Your task to perform on an android device: Search for "razer huntsman" on walmart, select the first entry, and add it to the cart. Image 0: 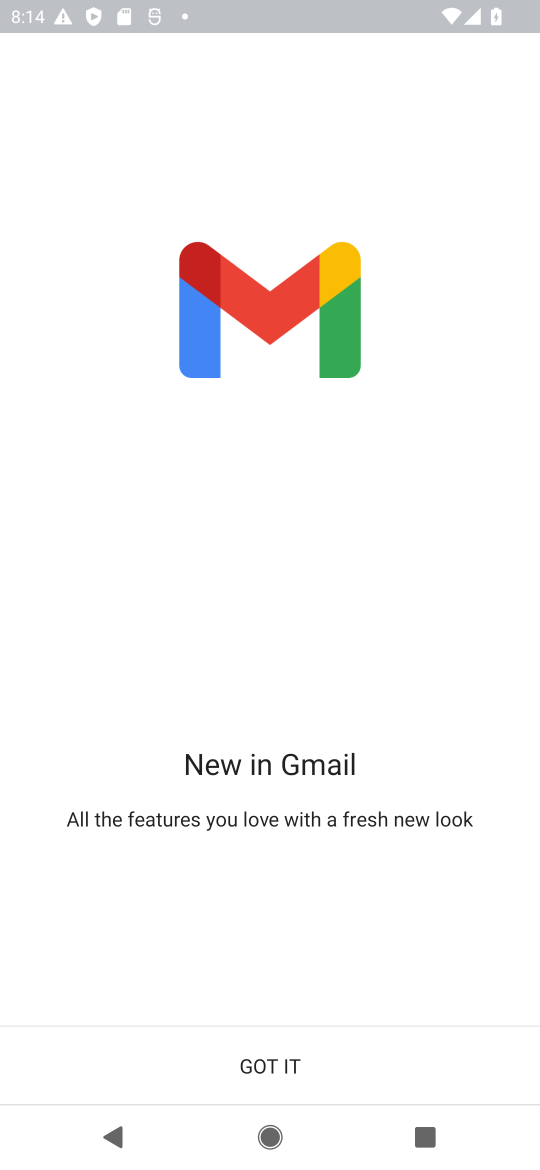
Step 0: press home button
Your task to perform on an android device: Search for "razer huntsman" on walmart, select the first entry, and add it to the cart. Image 1: 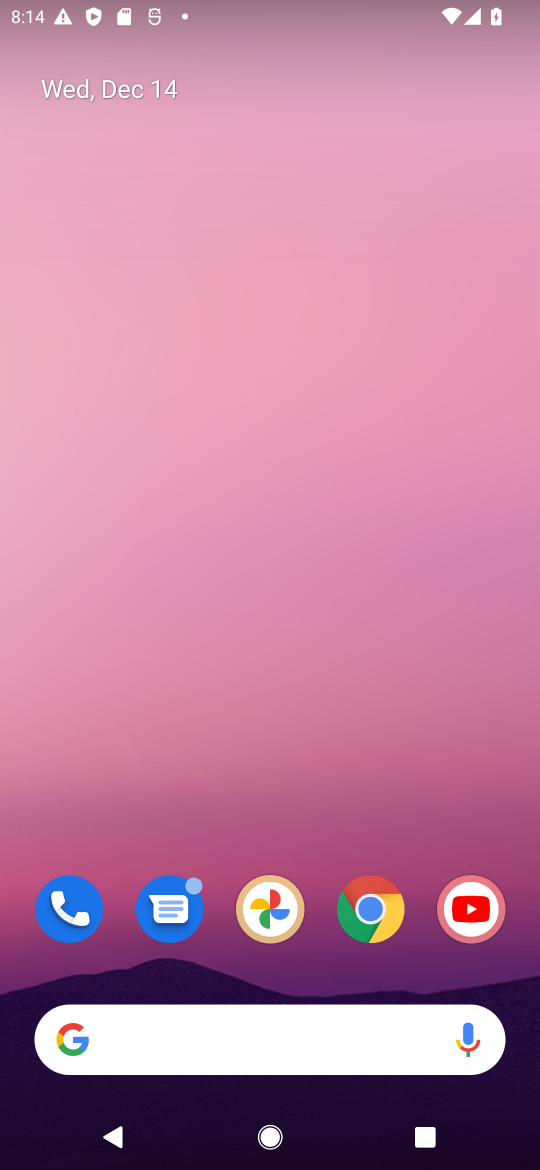
Step 1: click (372, 915)
Your task to perform on an android device: Search for "razer huntsman" on walmart, select the first entry, and add it to the cart. Image 2: 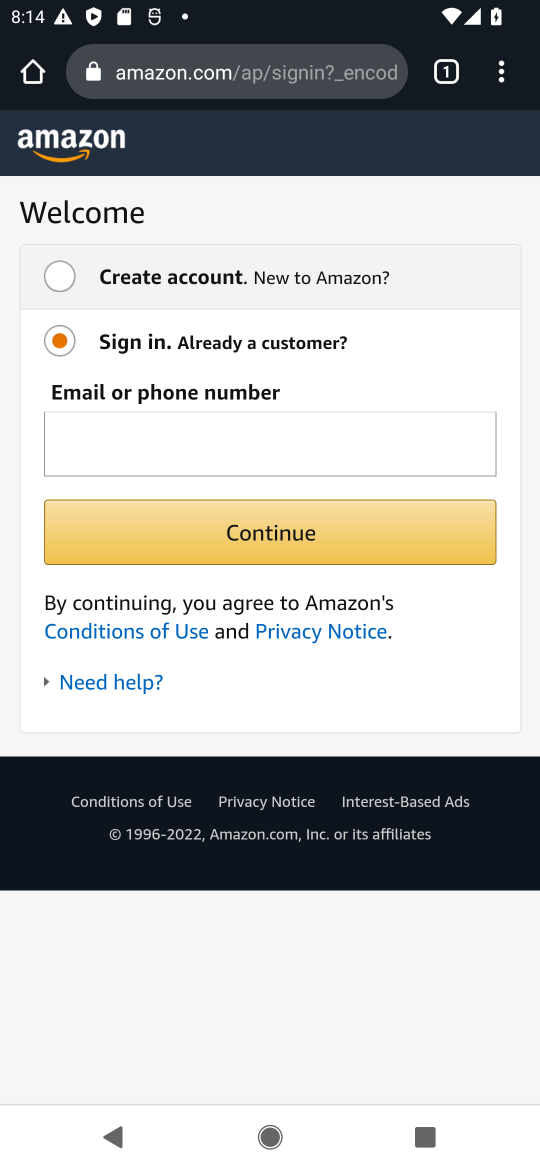
Step 2: click (264, 80)
Your task to perform on an android device: Search for "razer huntsman" on walmart, select the first entry, and add it to the cart. Image 3: 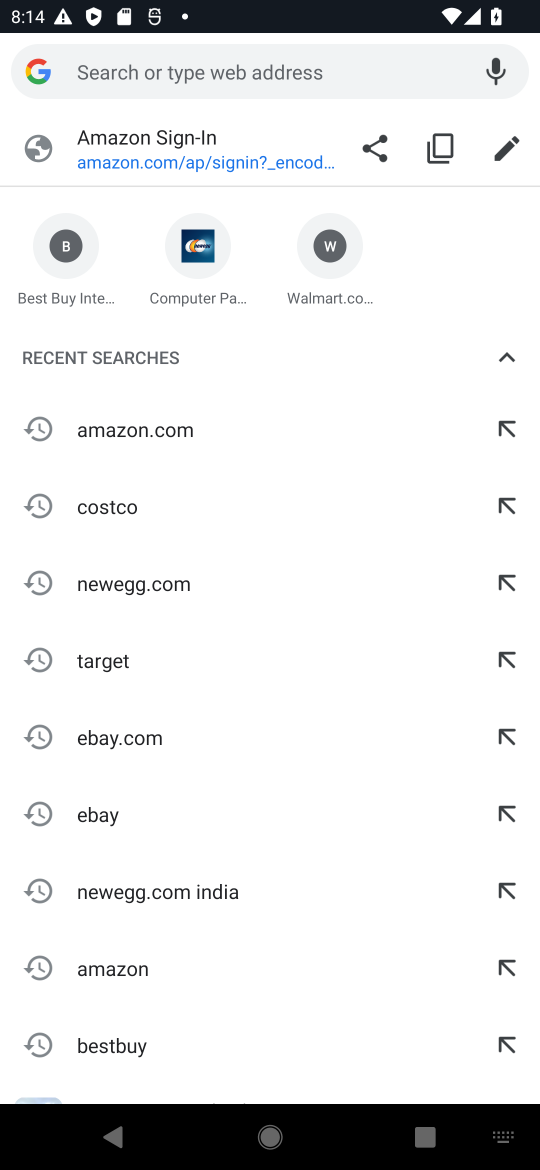
Step 3: type "walmart"
Your task to perform on an android device: Search for "razer huntsman" on walmart, select the first entry, and add it to the cart. Image 4: 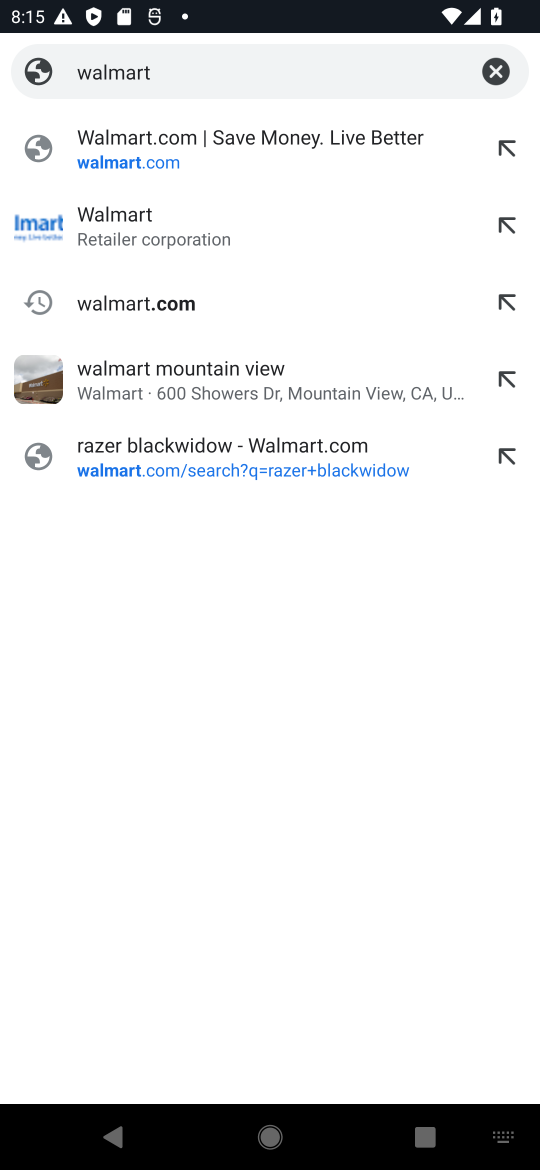
Step 4: click (165, 296)
Your task to perform on an android device: Search for "razer huntsman" on walmart, select the first entry, and add it to the cart. Image 5: 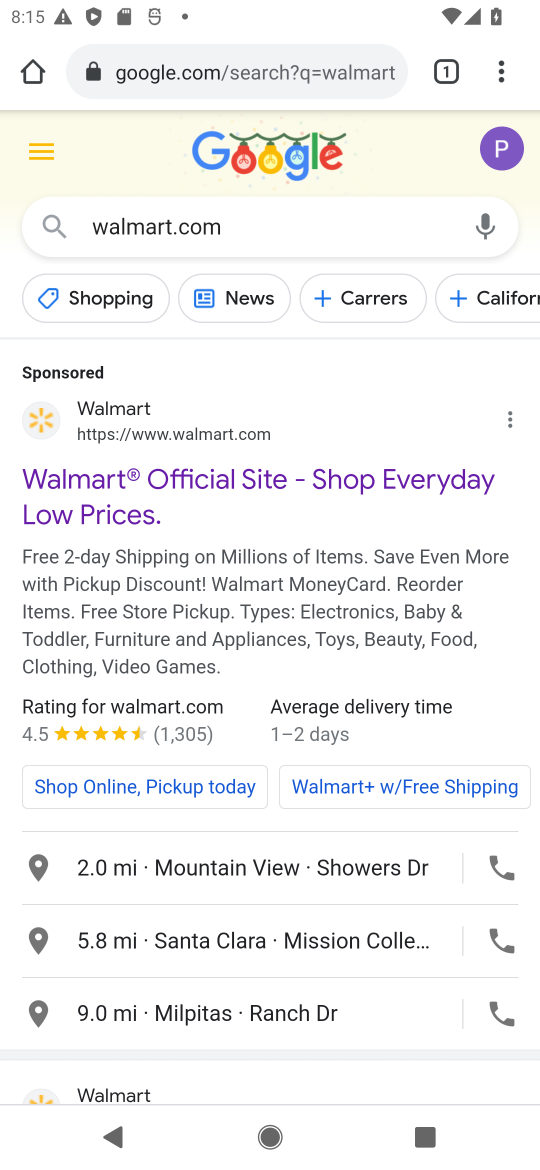
Step 5: click (221, 438)
Your task to perform on an android device: Search for "razer huntsman" on walmart, select the first entry, and add it to the cart. Image 6: 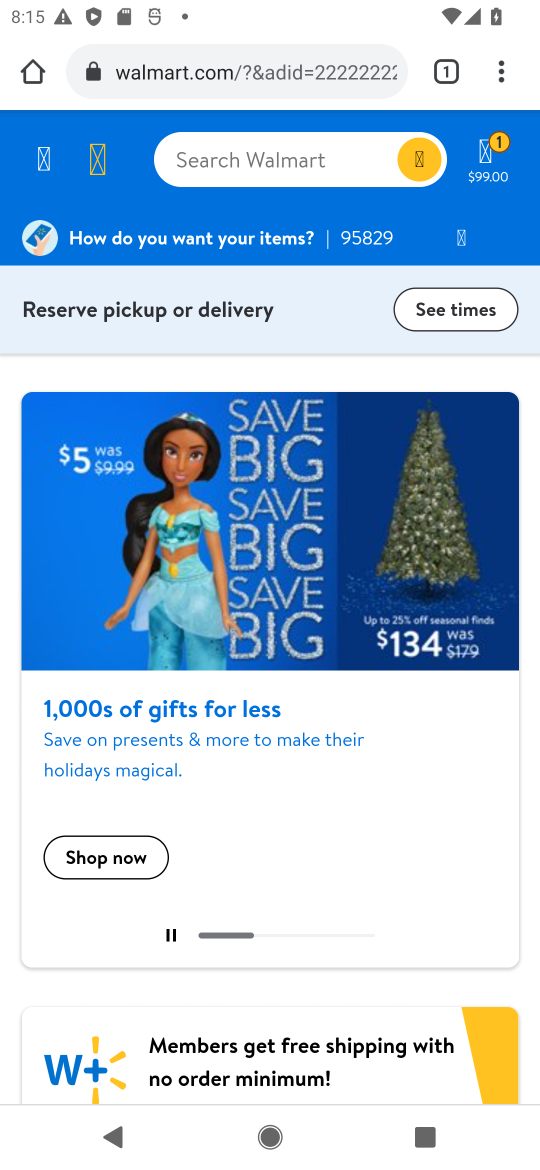
Step 6: click (304, 145)
Your task to perform on an android device: Search for "razer huntsman" on walmart, select the first entry, and add it to the cart. Image 7: 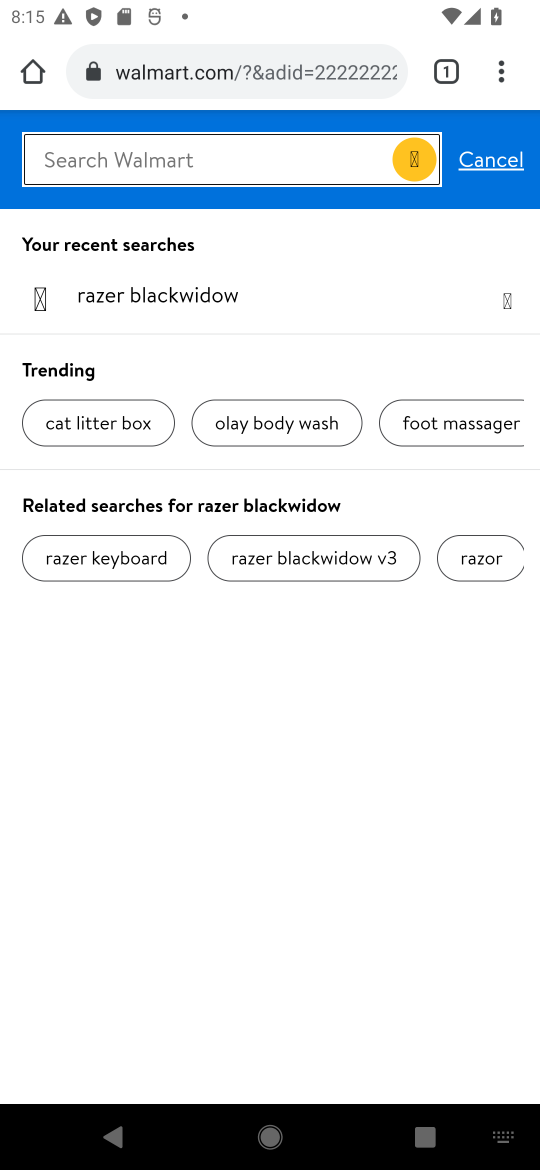
Step 7: type "razer huntsman"
Your task to perform on an android device: Search for "razer huntsman" on walmart, select the first entry, and add it to the cart. Image 8: 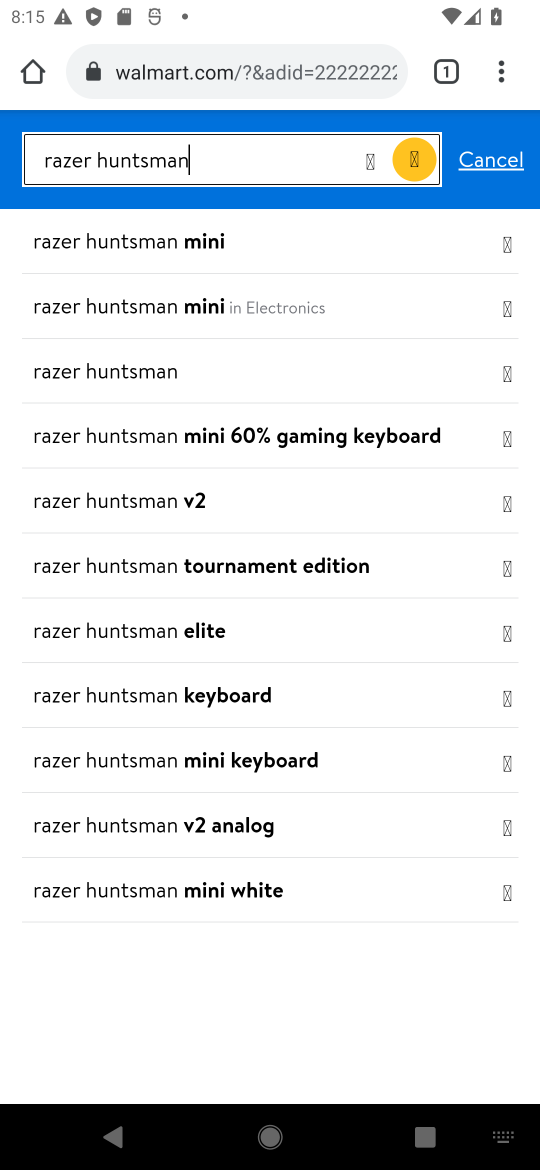
Step 8: click (151, 364)
Your task to perform on an android device: Search for "razer huntsman" on walmart, select the first entry, and add it to the cart. Image 9: 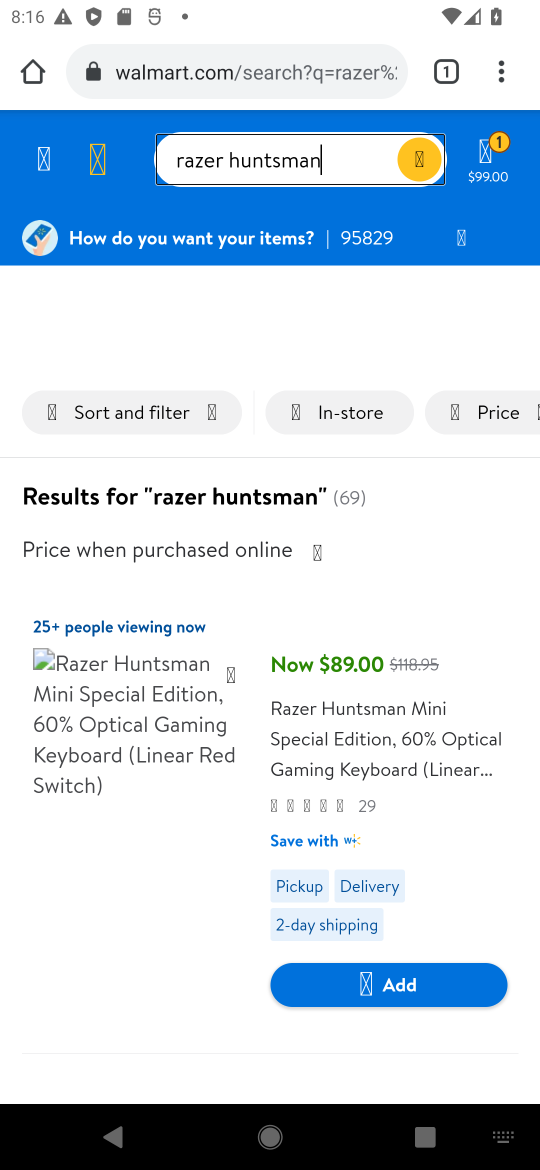
Step 9: click (440, 991)
Your task to perform on an android device: Search for "razer huntsman" on walmart, select the first entry, and add it to the cart. Image 10: 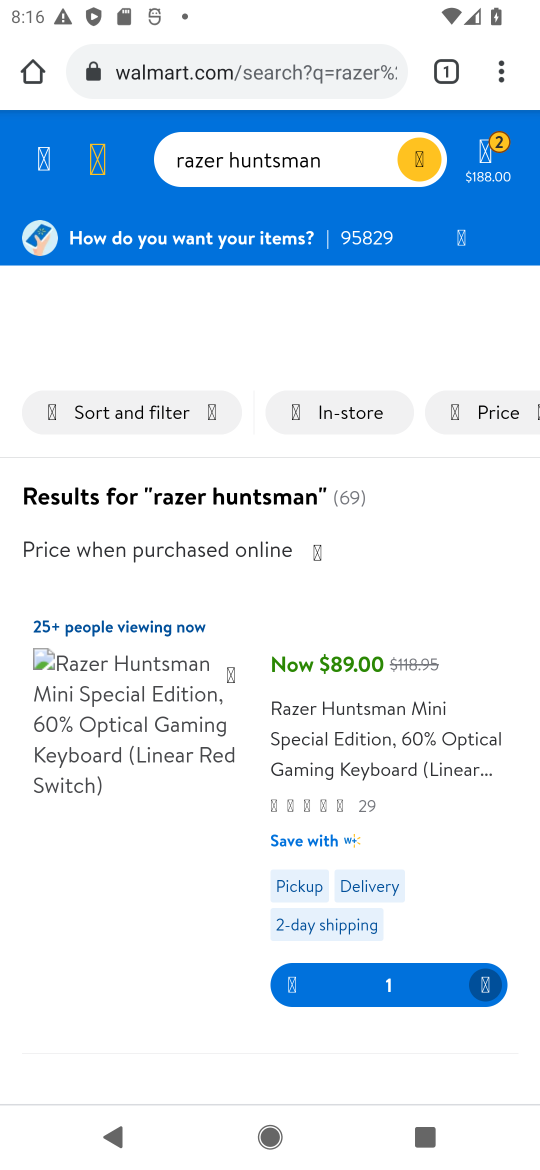
Step 10: click (484, 165)
Your task to perform on an android device: Search for "razer huntsman" on walmart, select the first entry, and add it to the cart. Image 11: 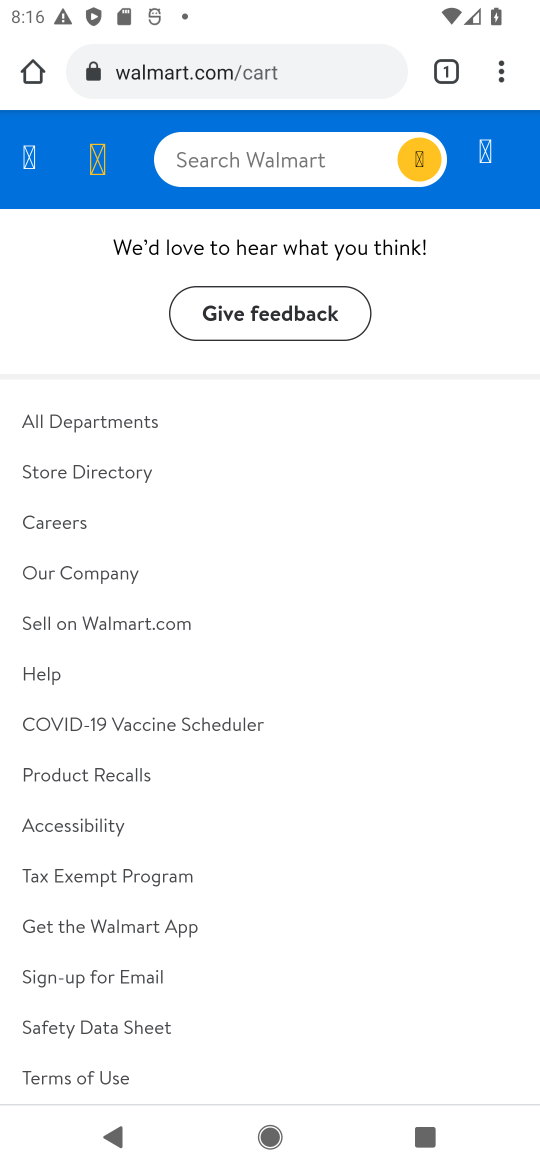
Step 11: click (304, 156)
Your task to perform on an android device: Search for "razer huntsman" on walmart, select the first entry, and add it to the cart. Image 12: 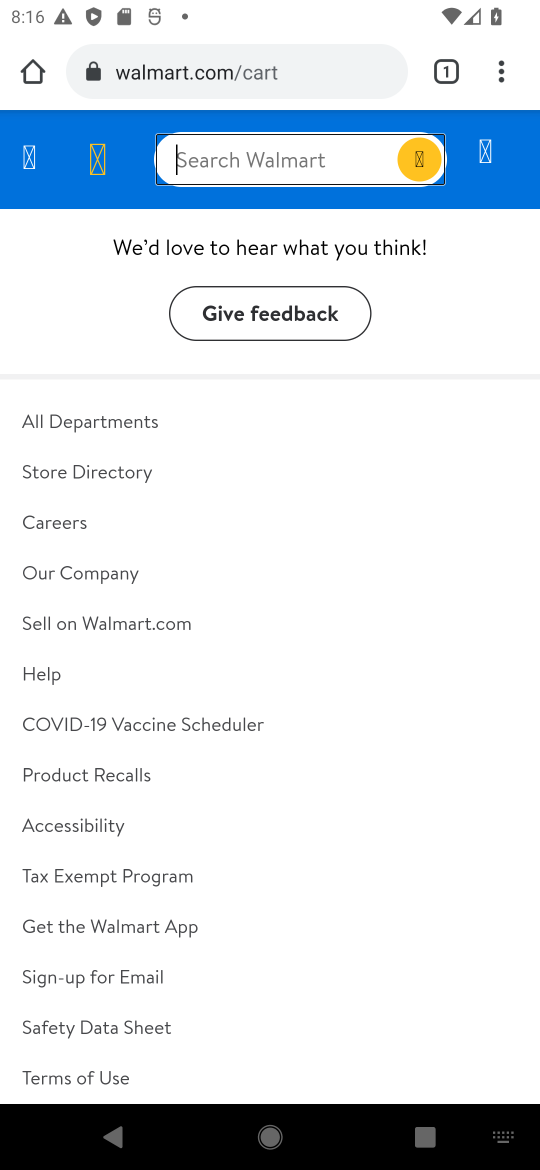
Step 12: click (494, 151)
Your task to perform on an android device: Search for "razer huntsman" on walmart, select the first entry, and add it to the cart. Image 13: 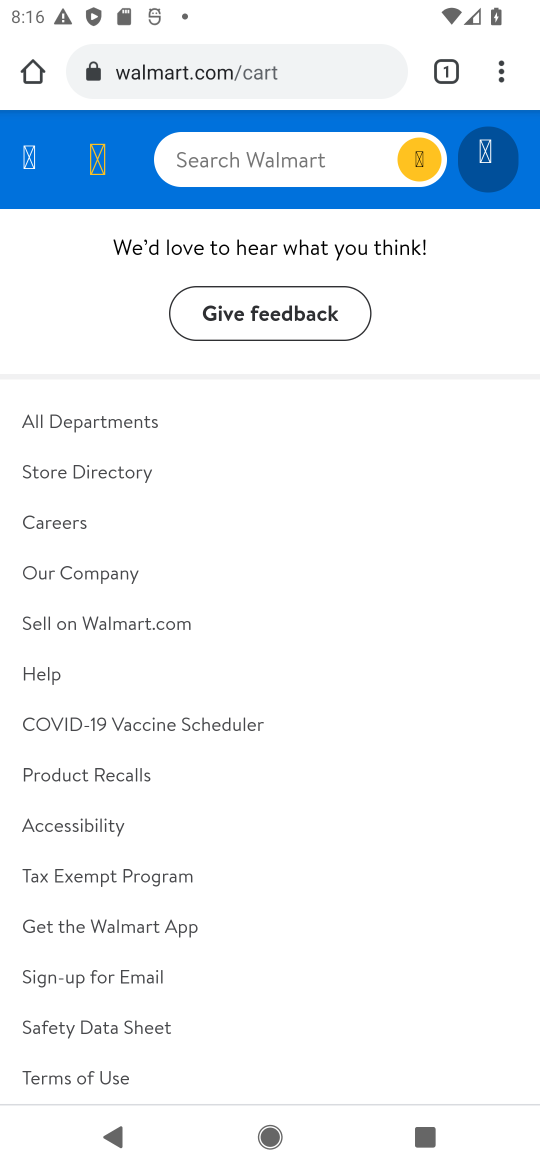
Step 13: press back button
Your task to perform on an android device: Search for "razer huntsman" on walmart, select the first entry, and add it to the cart. Image 14: 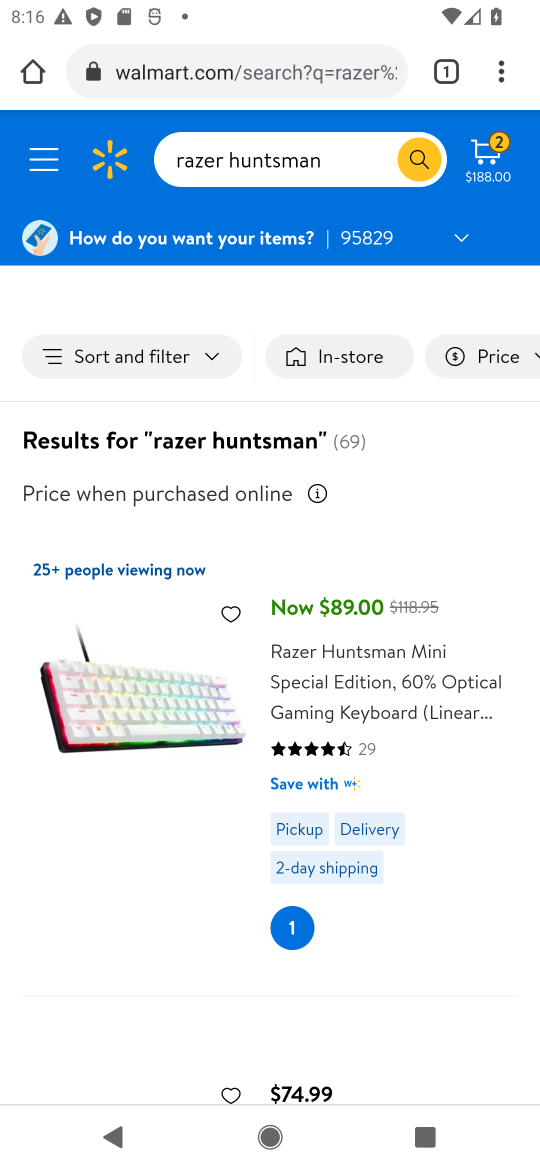
Step 14: click (146, 733)
Your task to perform on an android device: Search for "razer huntsman" on walmart, select the first entry, and add it to the cart. Image 15: 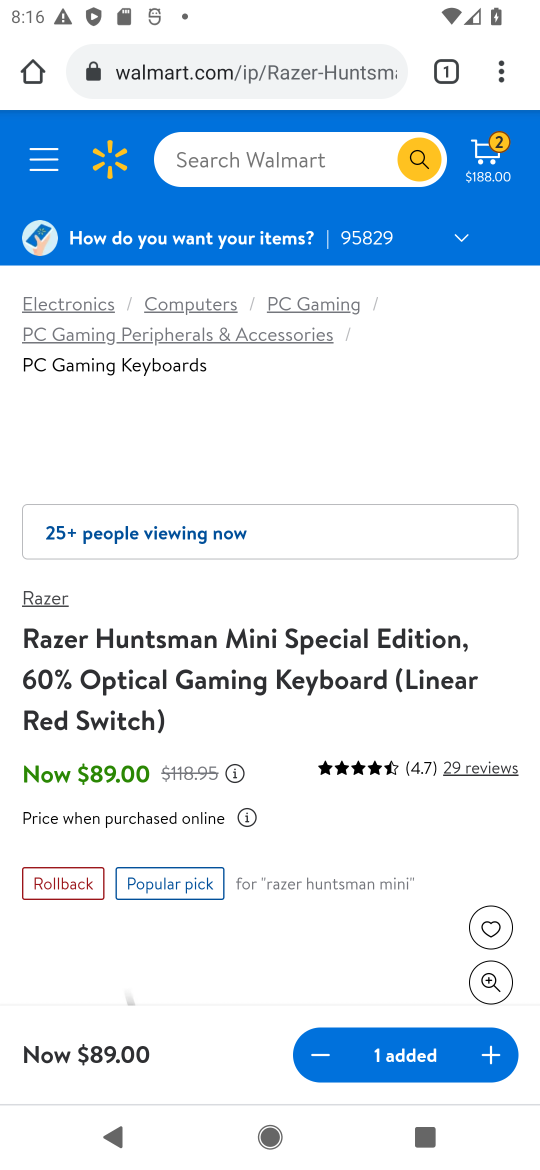
Step 15: click (473, 165)
Your task to perform on an android device: Search for "razer huntsman" on walmart, select the first entry, and add it to the cart. Image 16: 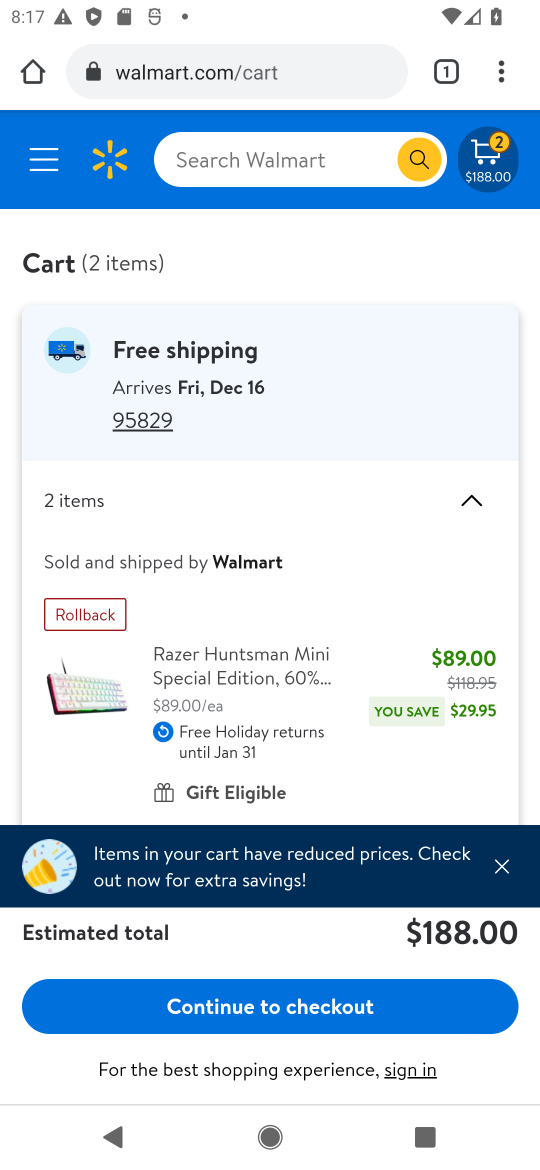
Step 16: task complete